Your task to perform on an android device: Go to Google maps Image 0: 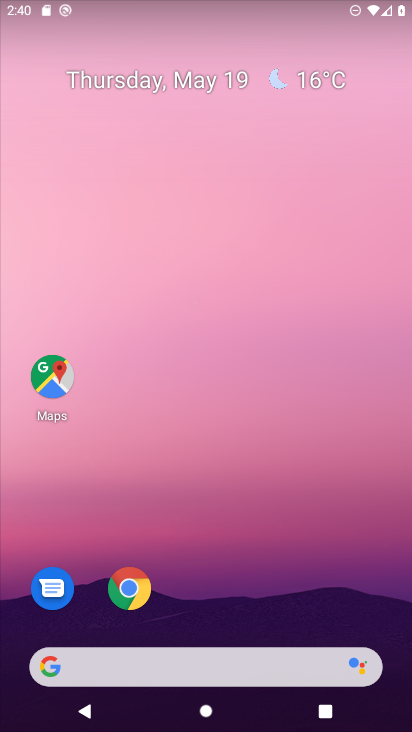
Step 0: click (48, 383)
Your task to perform on an android device: Go to Google maps Image 1: 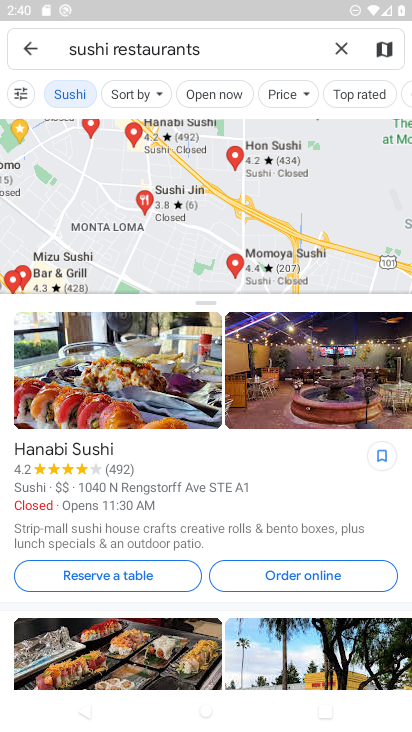
Step 1: task complete